Your task to perform on an android device: Open internet settings Image 0: 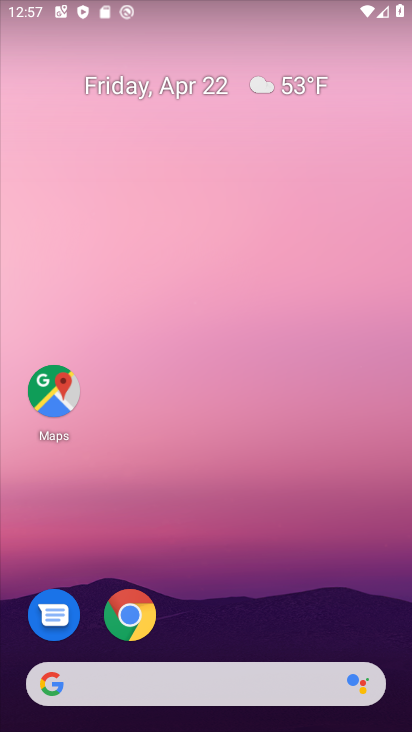
Step 0: drag from (351, 593) to (313, 5)
Your task to perform on an android device: Open internet settings Image 1: 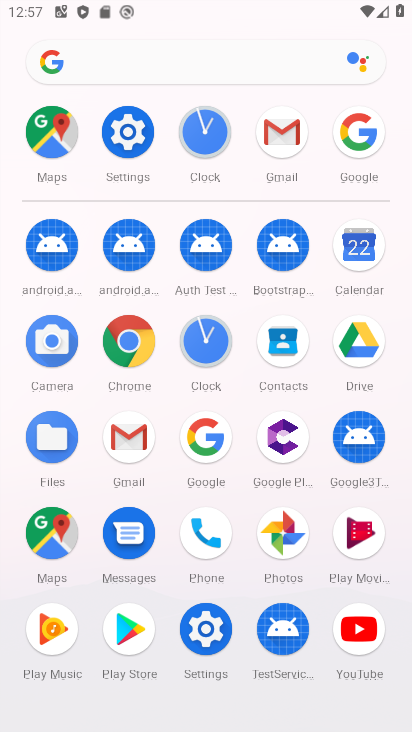
Step 1: click (130, 131)
Your task to perform on an android device: Open internet settings Image 2: 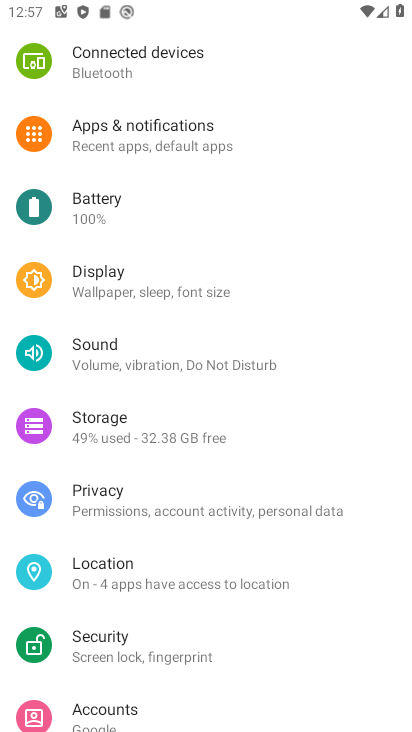
Step 2: drag from (304, 117) to (328, 538)
Your task to perform on an android device: Open internet settings Image 3: 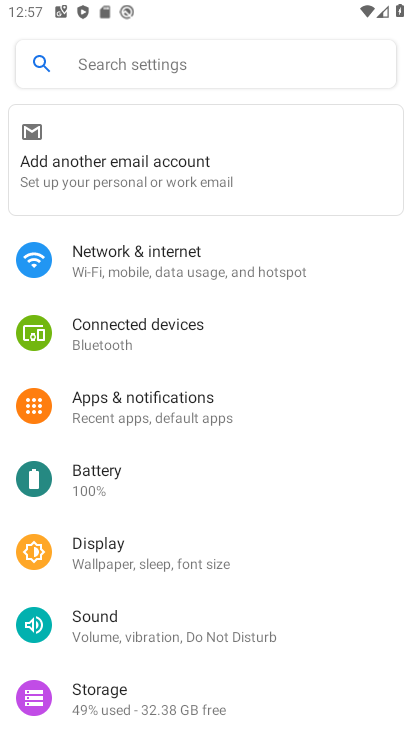
Step 3: click (151, 277)
Your task to perform on an android device: Open internet settings Image 4: 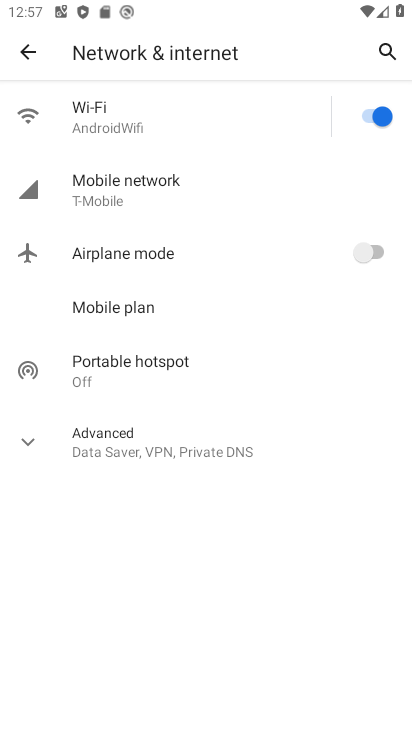
Step 4: click (34, 446)
Your task to perform on an android device: Open internet settings Image 5: 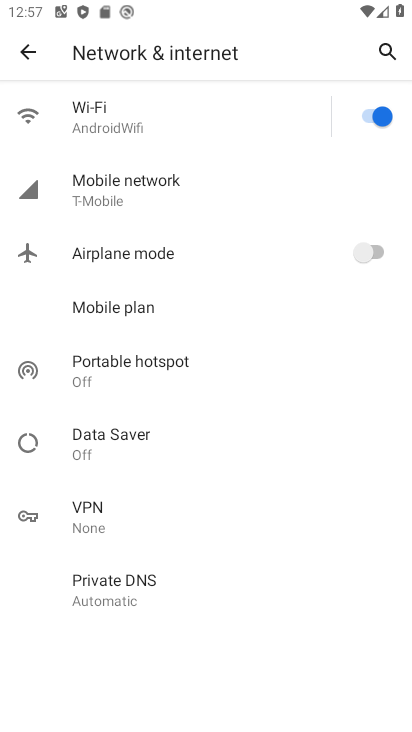
Step 5: task complete